Your task to perform on an android device: change the clock display to digital Image 0: 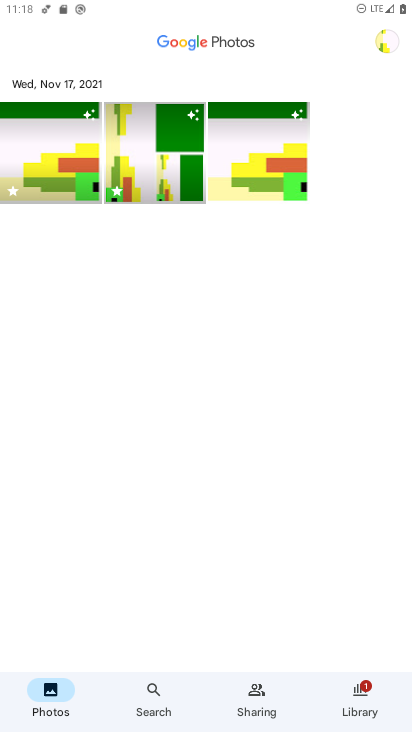
Step 0: press home button
Your task to perform on an android device: change the clock display to digital Image 1: 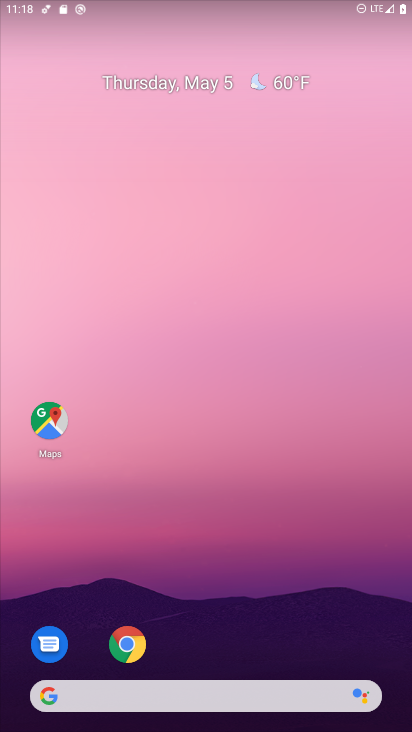
Step 1: drag from (315, 643) to (325, 225)
Your task to perform on an android device: change the clock display to digital Image 2: 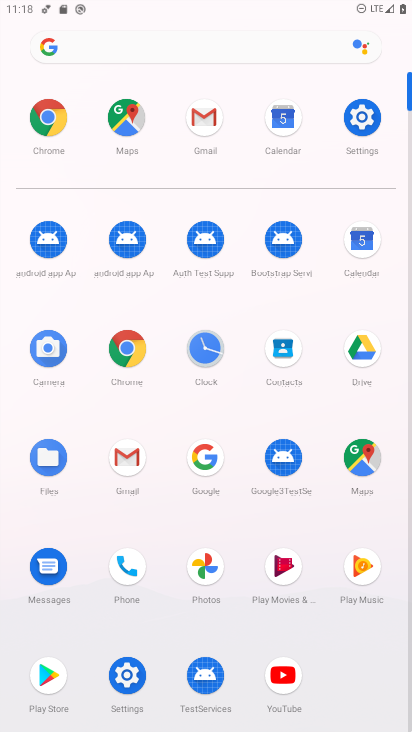
Step 2: click (211, 353)
Your task to perform on an android device: change the clock display to digital Image 3: 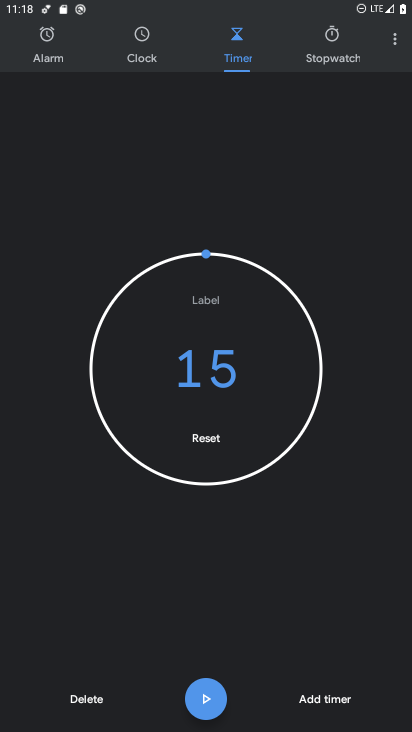
Step 3: click (393, 50)
Your task to perform on an android device: change the clock display to digital Image 4: 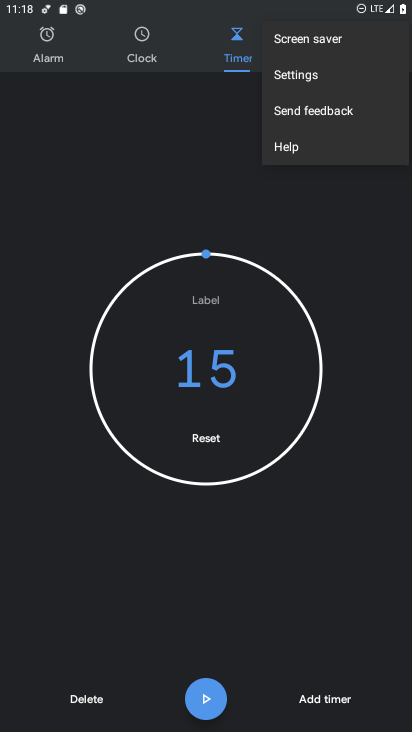
Step 4: click (348, 77)
Your task to perform on an android device: change the clock display to digital Image 5: 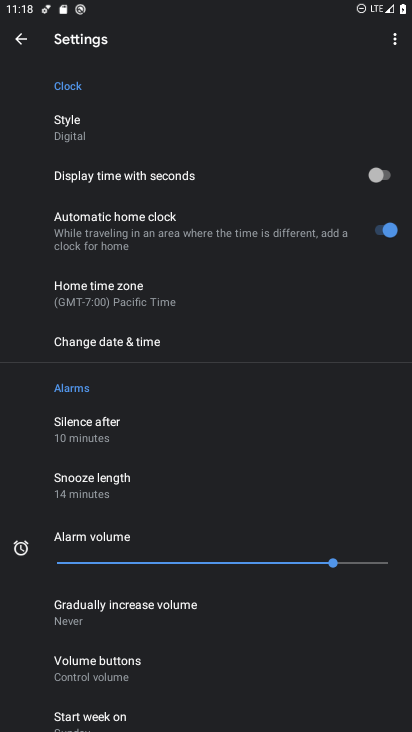
Step 5: task complete